Your task to perform on an android device: Open Chrome and go to settings Image 0: 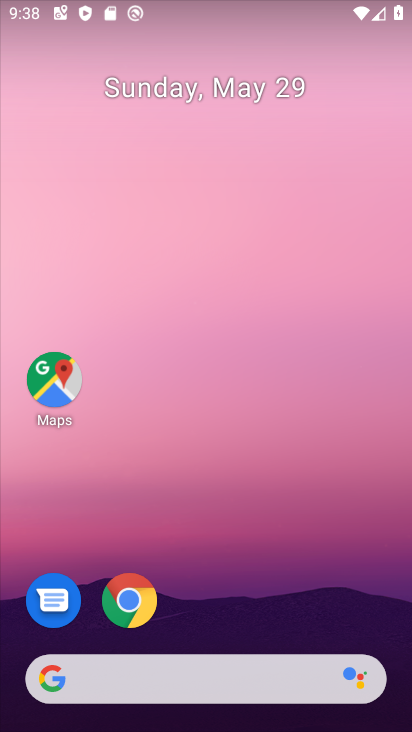
Step 0: click (130, 599)
Your task to perform on an android device: Open Chrome and go to settings Image 1: 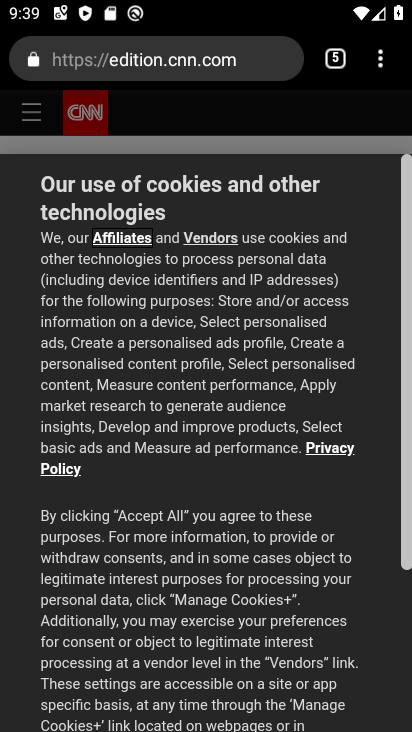
Step 1: click (379, 64)
Your task to perform on an android device: Open Chrome and go to settings Image 2: 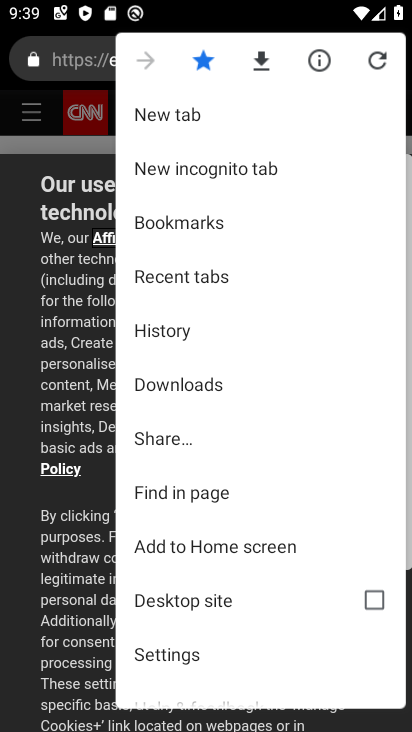
Step 2: click (183, 654)
Your task to perform on an android device: Open Chrome and go to settings Image 3: 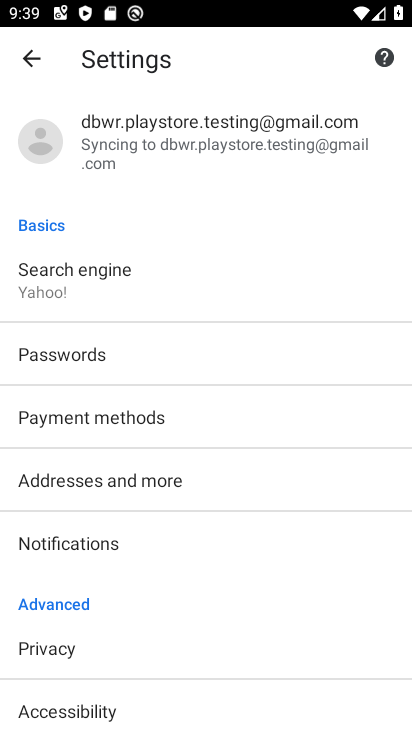
Step 3: task complete